Your task to perform on an android device: Find coffee shops on Maps Image 0: 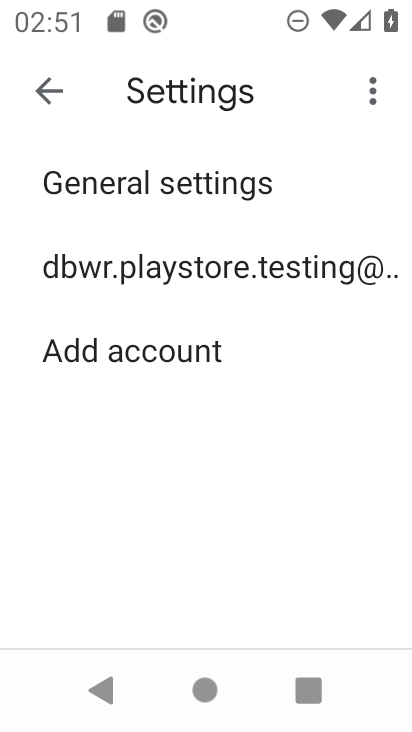
Step 0: press home button
Your task to perform on an android device: Find coffee shops on Maps Image 1: 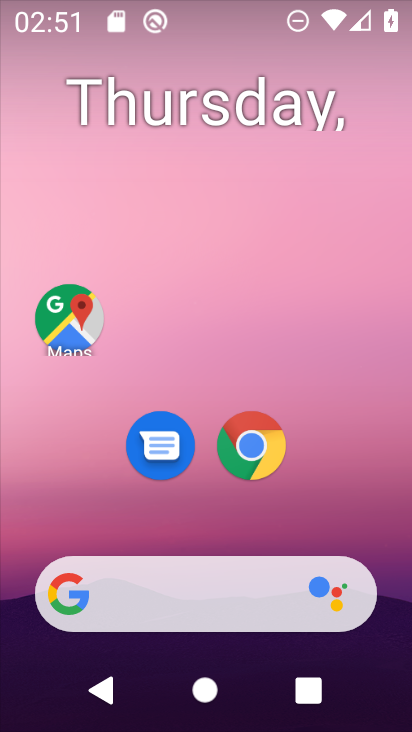
Step 1: click (59, 319)
Your task to perform on an android device: Find coffee shops on Maps Image 2: 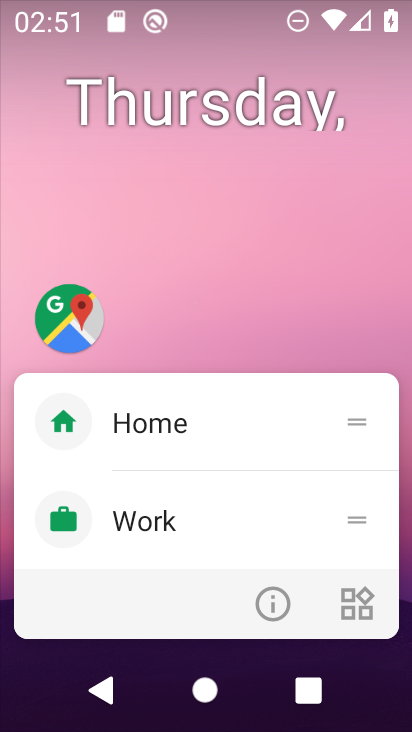
Step 2: click (50, 313)
Your task to perform on an android device: Find coffee shops on Maps Image 3: 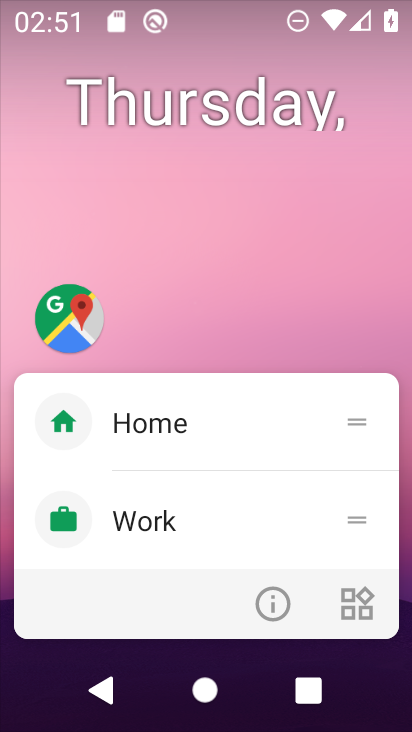
Step 3: click (51, 310)
Your task to perform on an android device: Find coffee shops on Maps Image 4: 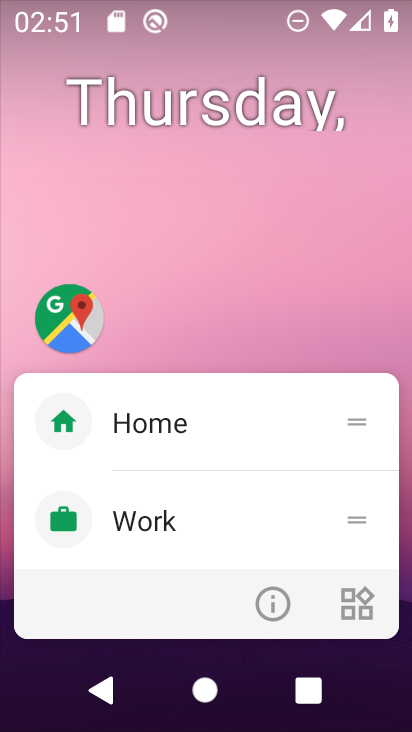
Step 4: click (59, 304)
Your task to perform on an android device: Find coffee shops on Maps Image 5: 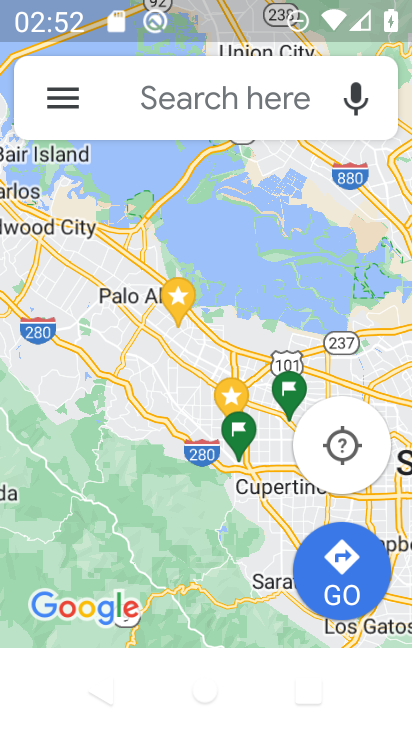
Step 5: click (168, 113)
Your task to perform on an android device: Find coffee shops on Maps Image 6: 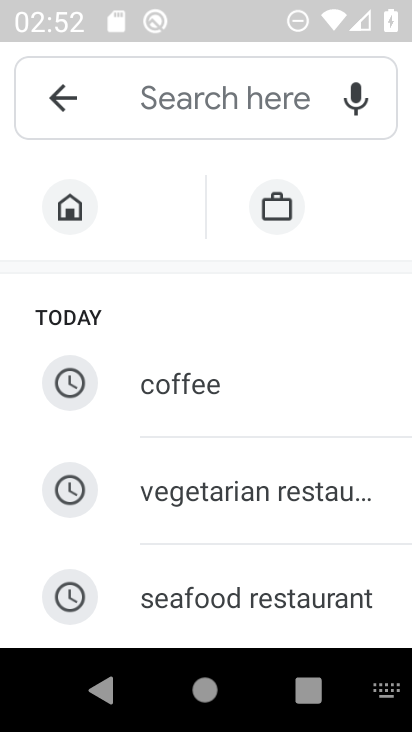
Step 6: click (191, 371)
Your task to perform on an android device: Find coffee shops on Maps Image 7: 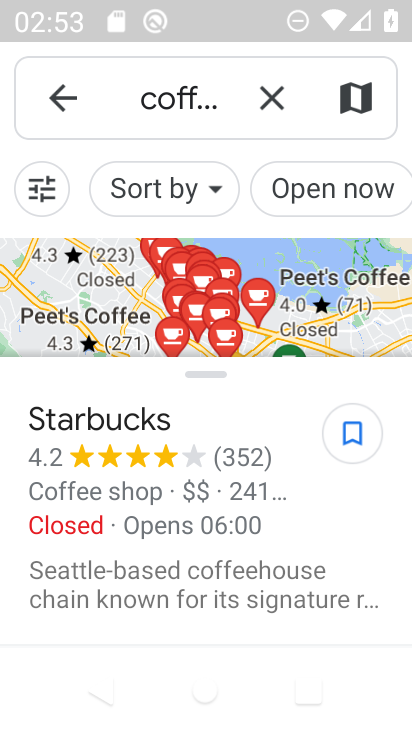
Step 7: task complete